Your task to perform on an android device: turn off airplane mode Image 0: 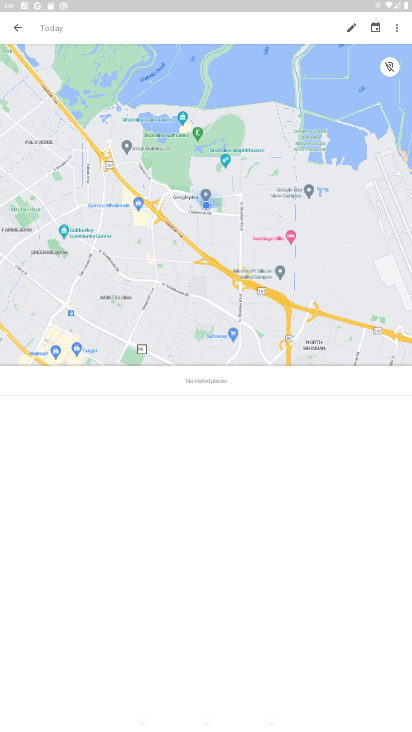
Step 0: press home button
Your task to perform on an android device: turn off airplane mode Image 1: 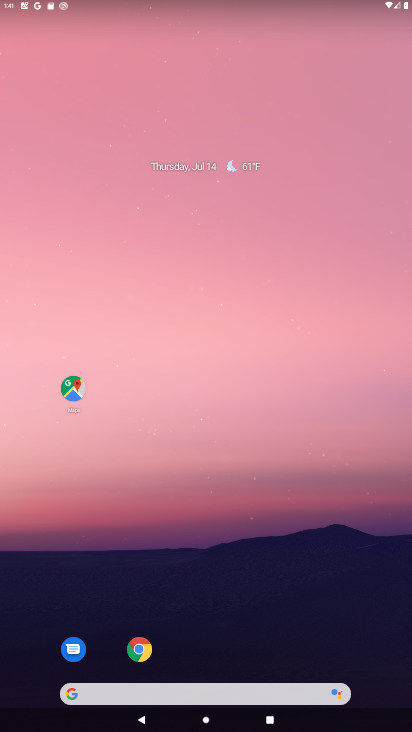
Step 1: drag from (297, 637) to (323, 1)
Your task to perform on an android device: turn off airplane mode Image 2: 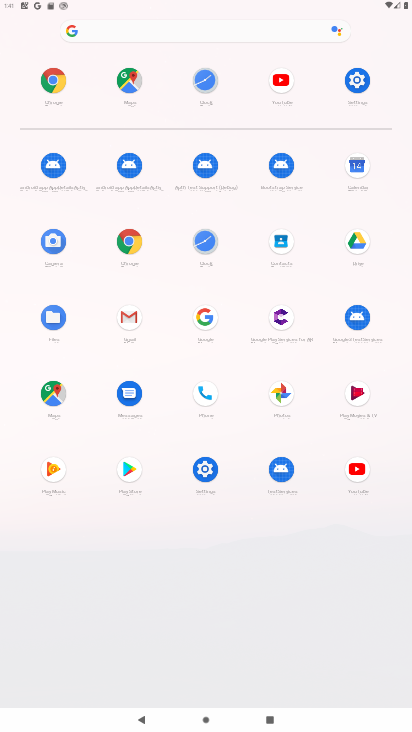
Step 2: click (356, 88)
Your task to perform on an android device: turn off airplane mode Image 3: 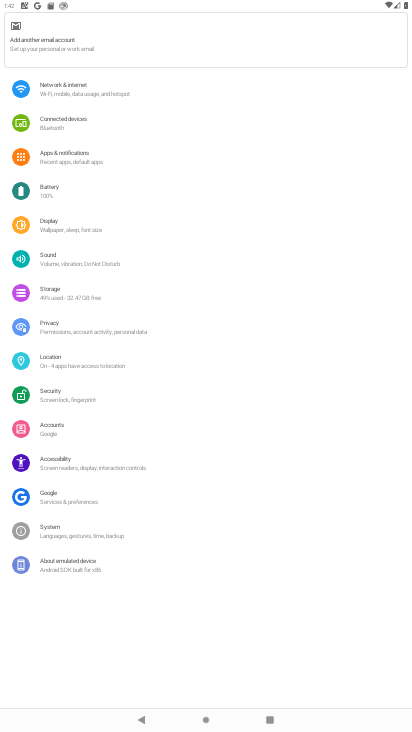
Step 3: click (221, 94)
Your task to perform on an android device: turn off airplane mode Image 4: 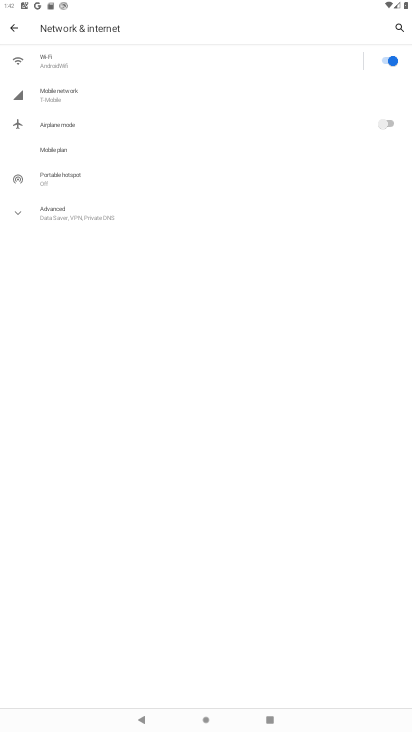
Step 4: task complete